Your task to perform on an android device: clear history in the chrome app Image 0: 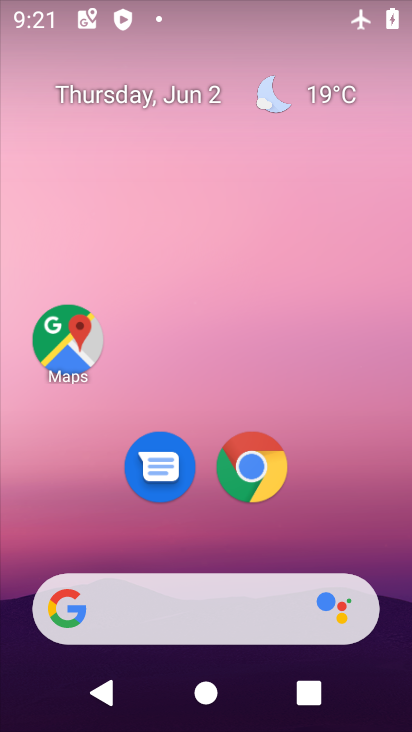
Step 0: click (248, 464)
Your task to perform on an android device: clear history in the chrome app Image 1: 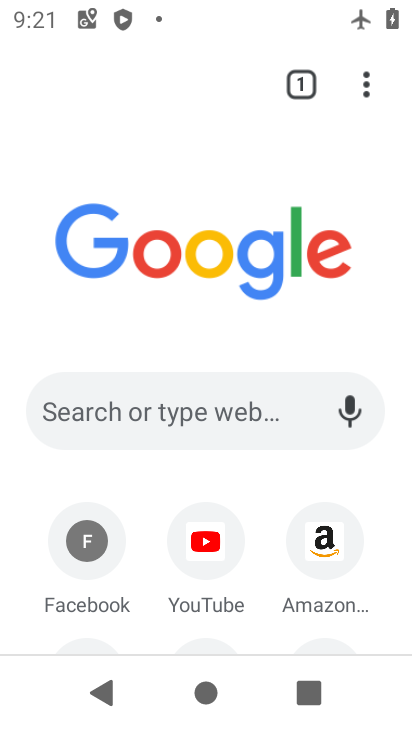
Step 1: click (362, 94)
Your task to perform on an android device: clear history in the chrome app Image 2: 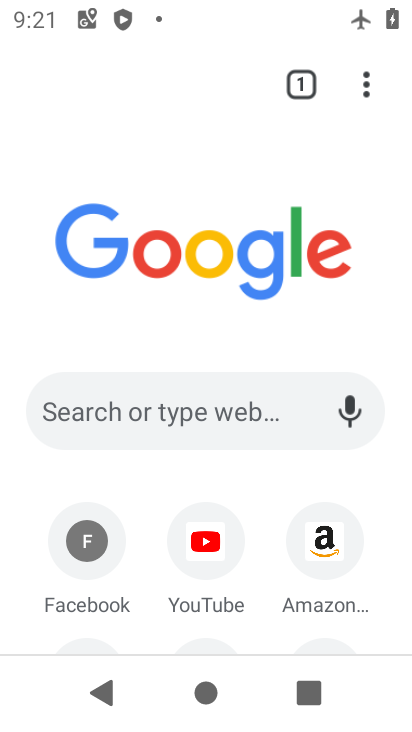
Step 2: click (369, 92)
Your task to perform on an android device: clear history in the chrome app Image 3: 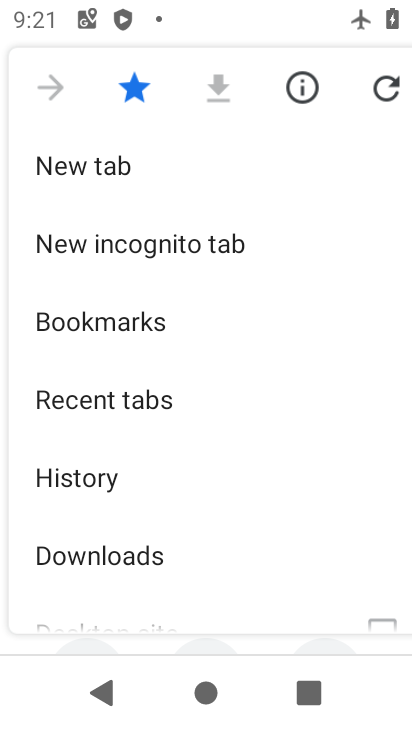
Step 3: click (97, 476)
Your task to perform on an android device: clear history in the chrome app Image 4: 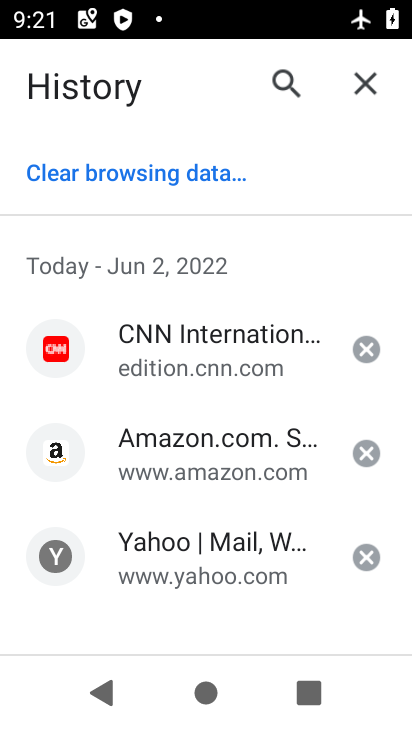
Step 4: click (128, 173)
Your task to perform on an android device: clear history in the chrome app Image 5: 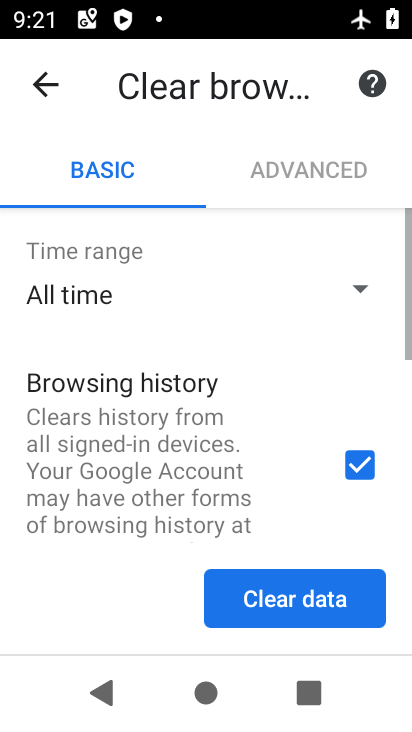
Step 5: drag from (177, 513) to (207, 241)
Your task to perform on an android device: clear history in the chrome app Image 6: 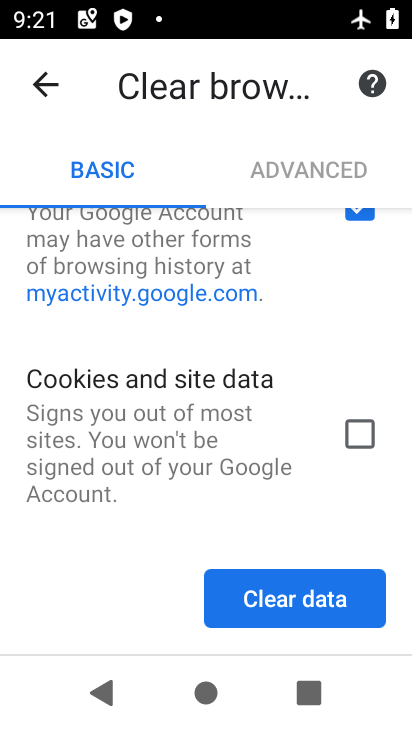
Step 6: drag from (164, 505) to (173, 265)
Your task to perform on an android device: clear history in the chrome app Image 7: 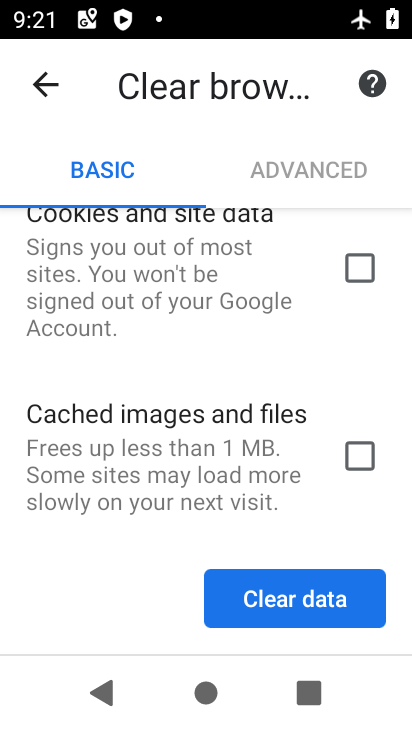
Step 7: click (346, 286)
Your task to perform on an android device: clear history in the chrome app Image 8: 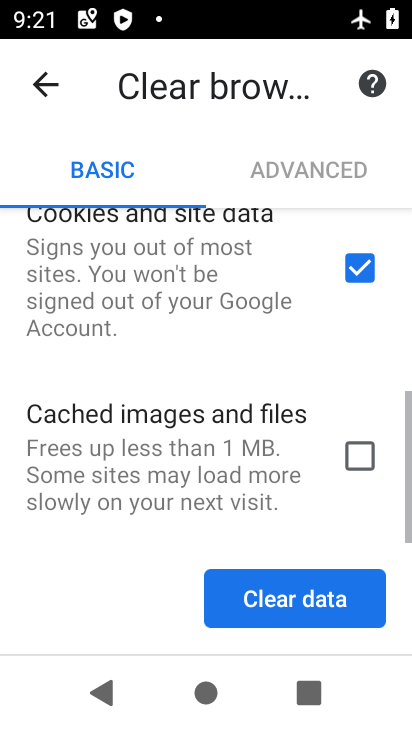
Step 8: click (361, 478)
Your task to perform on an android device: clear history in the chrome app Image 9: 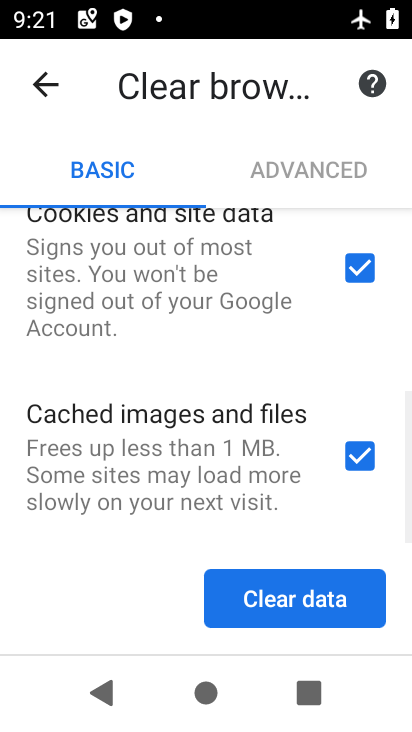
Step 9: click (271, 598)
Your task to perform on an android device: clear history in the chrome app Image 10: 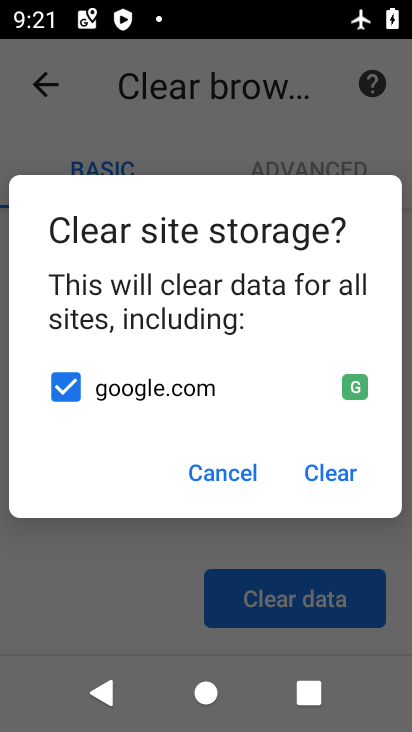
Step 10: click (328, 465)
Your task to perform on an android device: clear history in the chrome app Image 11: 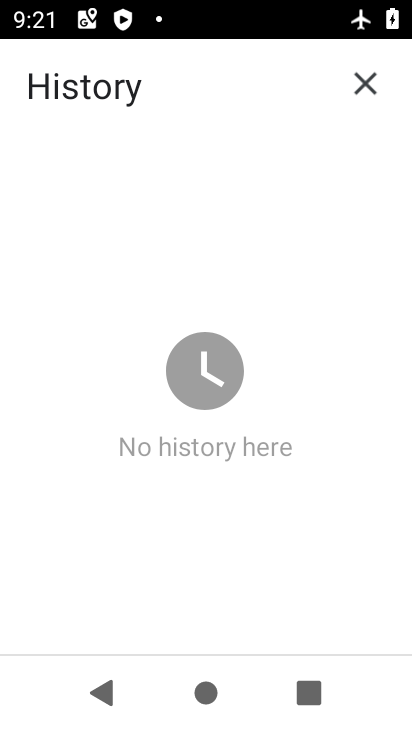
Step 11: task complete